Your task to perform on an android device: turn on airplane mode Image 0: 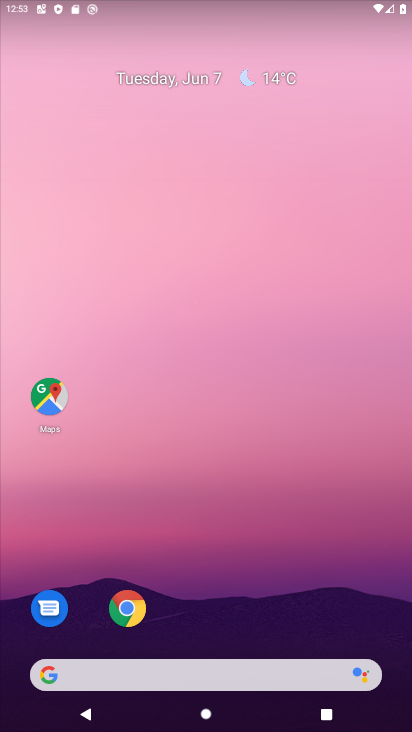
Step 0: drag from (277, 547) to (238, 133)
Your task to perform on an android device: turn on airplane mode Image 1: 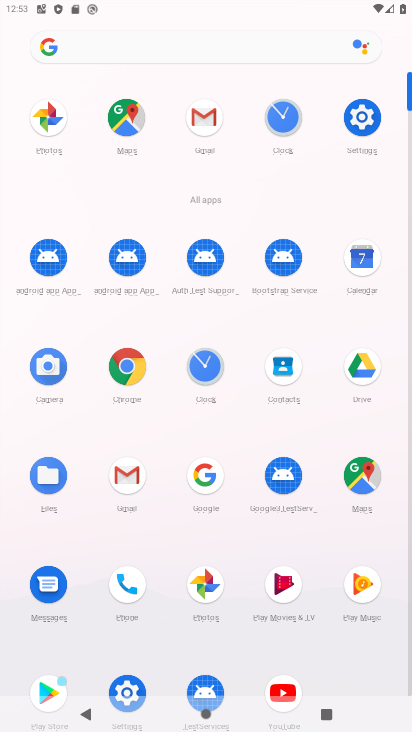
Step 1: click (367, 121)
Your task to perform on an android device: turn on airplane mode Image 2: 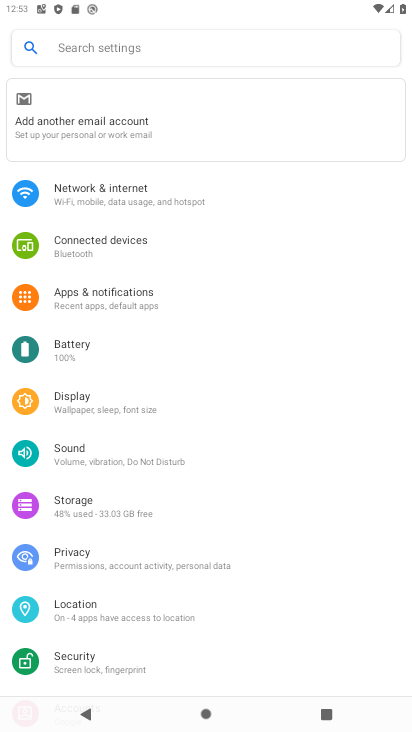
Step 2: click (82, 184)
Your task to perform on an android device: turn on airplane mode Image 3: 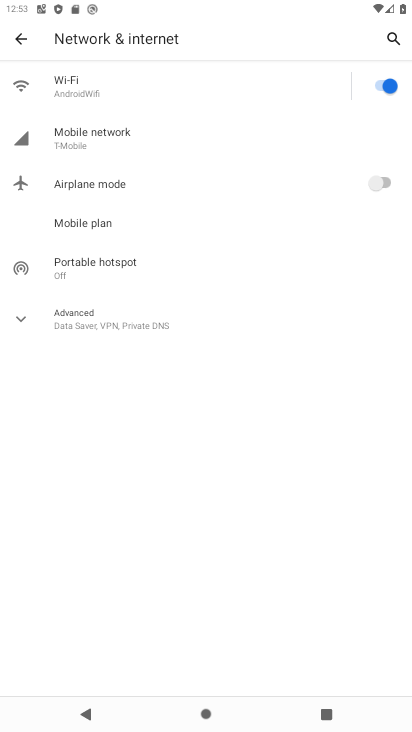
Step 3: click (379, 179)
Your task to perform on an android device: turn on airplane mode Image 4: 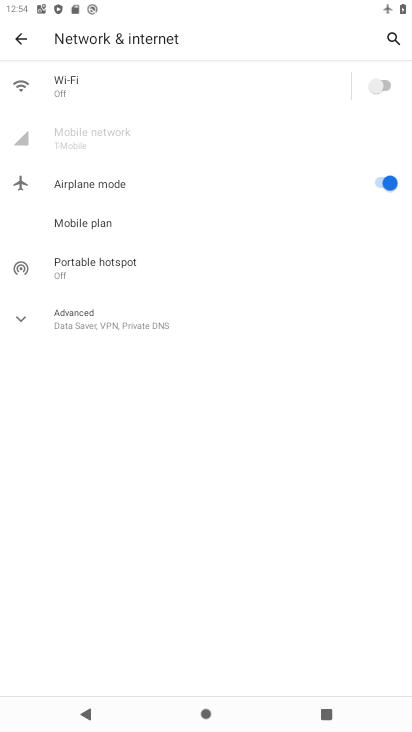
Step 4: task complete